Your task to perform on an android device: find which apps use the phone's location Image 0: 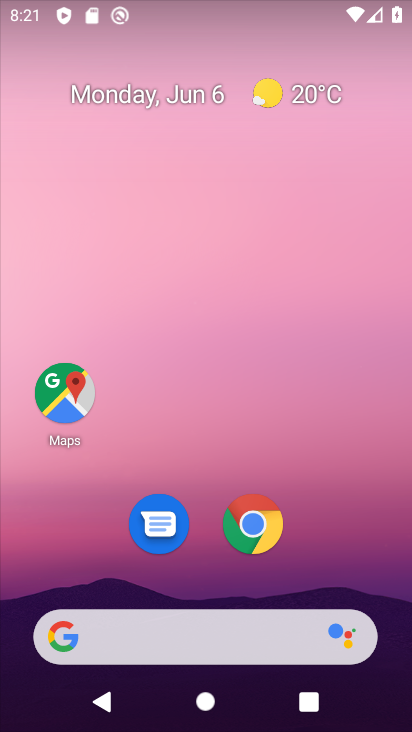
Step 0: drag from (306, 534) to (349, 52)
Your task to perform on an android device: find which apps use the phone's location Image 1: 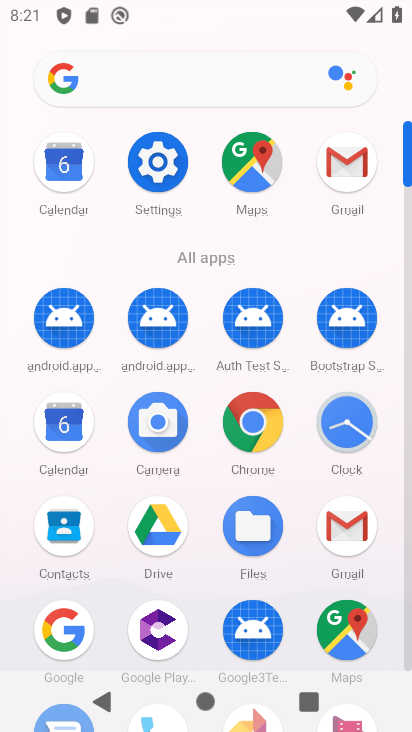
Step 1: click (157, 175)
Your task to perform on an android device: find which apps use the phone's location Image 2: 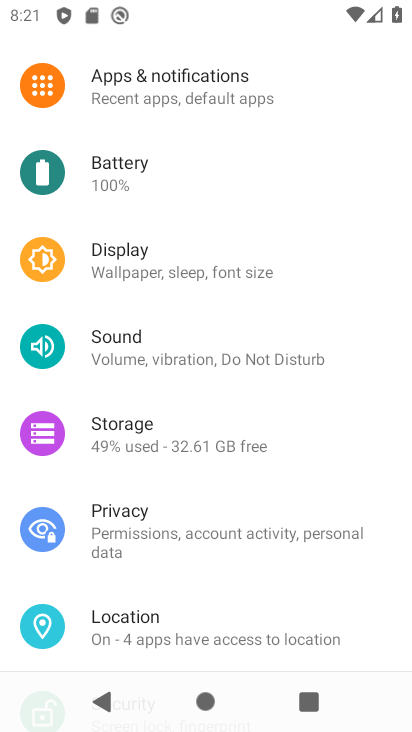
Step 2: click (228, 621)
Your task to perform on an android device: find which apps use the phone's location Image 3: 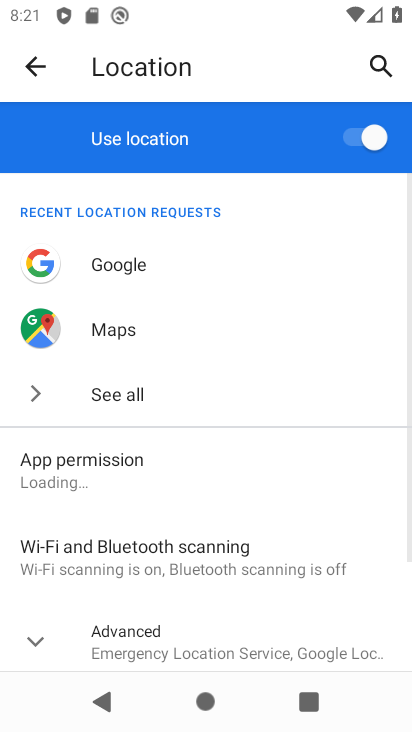
Step 3: click (158, 471)
Your task to perform on an android device: find which apps use the phone's location Image 4: 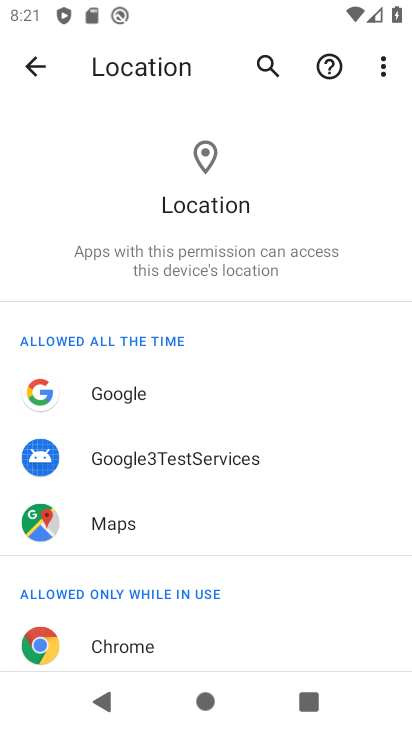
Step 4: task complete